Your task to perform on an android device: Clear all items from cart on bestbuy.com. Search for usb-a on bestbuy.com, select the first entry, add it to the cart, then select checkout. Image 0: 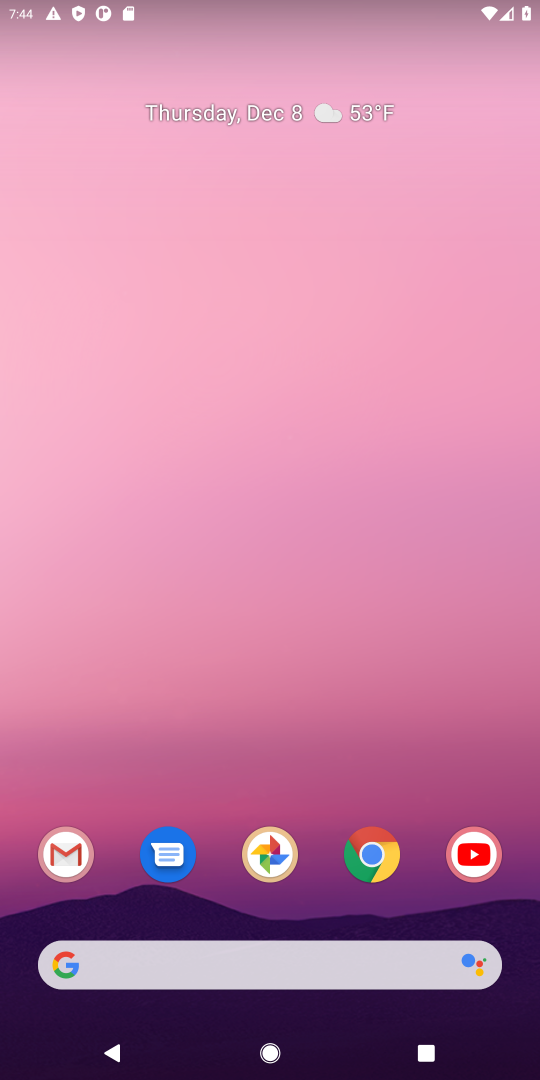
Step 0: drag from (223, 971) to (343, 320)
Your task to perform on an android device: Clear all items from cart on bestbuy.com. Search for usb-a on bestbuy.com, select the first entry, add it to the cart, then select checkout. Image 1: 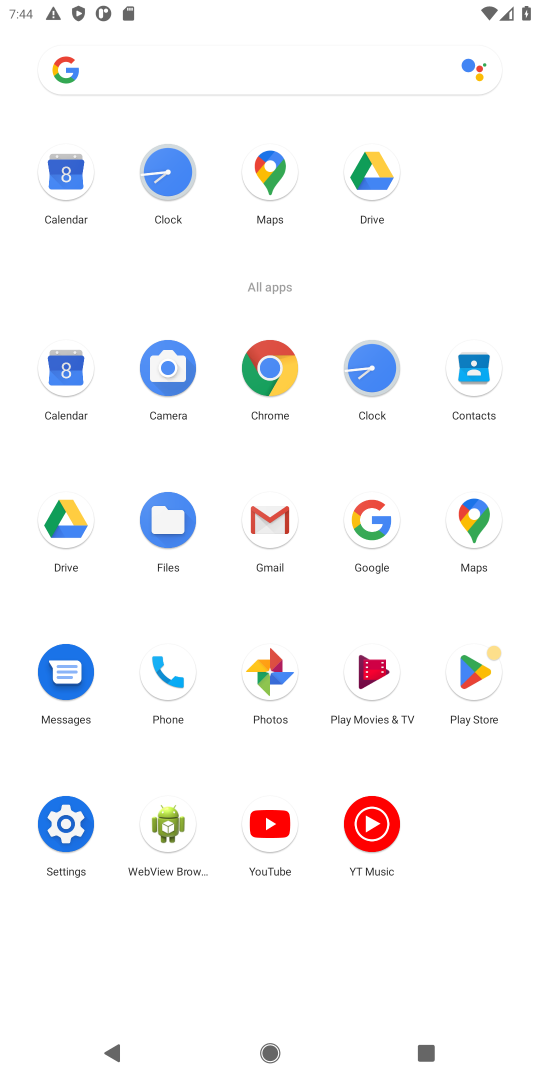
Step 1: click (367, 526)
Your task to perform on an android device: Clear all items from cart on bestbuy.com. Search for usb-a on bestbuy.com, select the first entry, add it to the cart, then select checkout. Image 2: 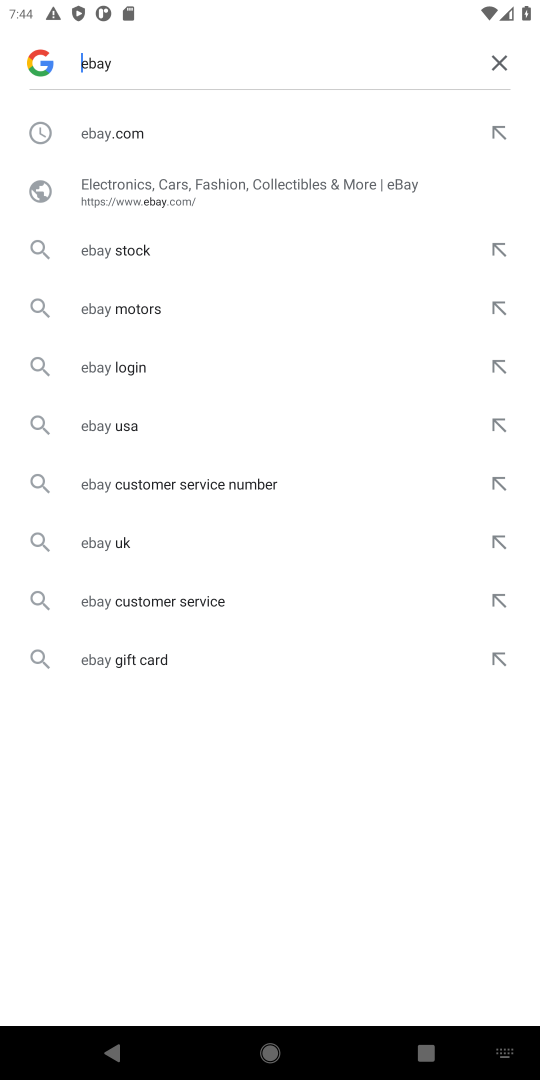
Step 2: click (168, 70)
Your task to perform on an android device: Clear all items from cart on bestbuy.com. Search for usb-a on bestbuy.com, select the first entry, add it to the cart, then select checkout. Image 3: 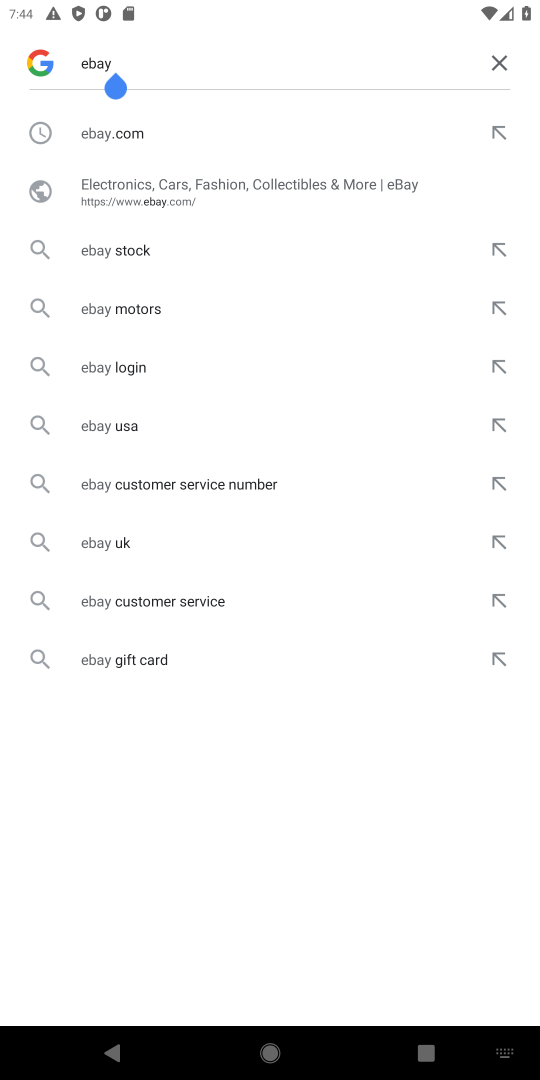
Step 3: click (506, 61)
Your task to perform on an android device: Clear all items from cart on bestbuy.com. Search for usb-a on bestbuy.com, select the first entry, add it to the cart, then select checkout. Image 4: 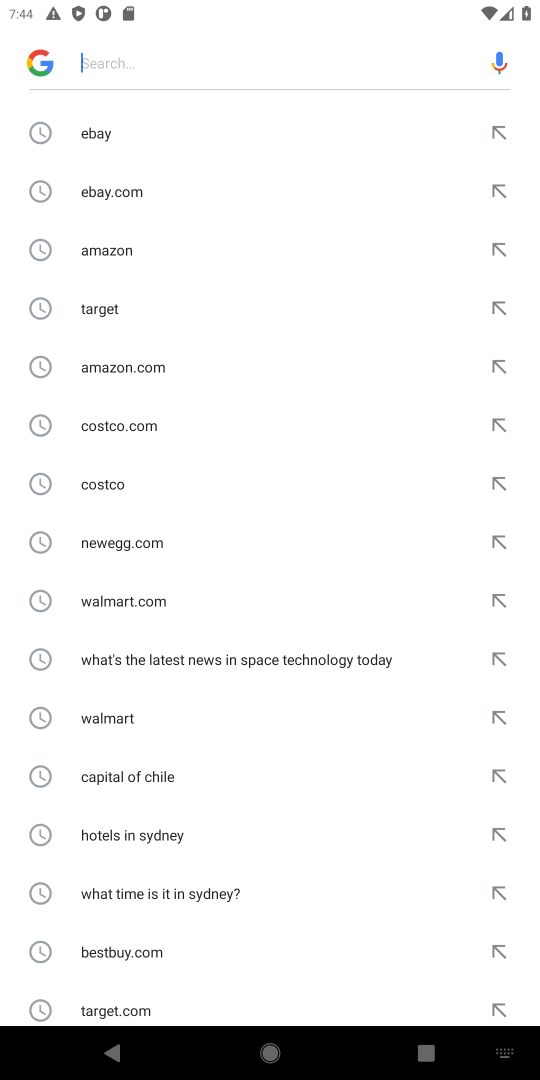
Step 4: click (119, 948)
Your task to perform on an android device: Clear all items from cart on bestbuy.com. Search for usb-a on bestbuy.com, select the first entry, add it to the cart, then select checkout. Image 5: 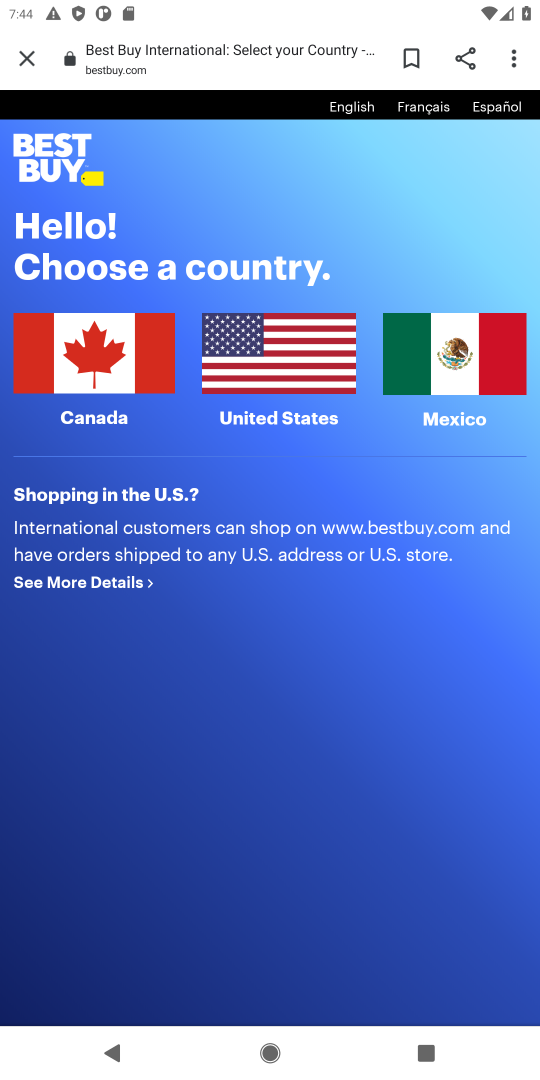
Step 5: click (270, 345)
Your task to perform on an android device: Clear all items from cart on bestbuy.com. Search for usb-a on bestbuy.com, select the first entry, add it to the cart, then select checkout. Image 6: 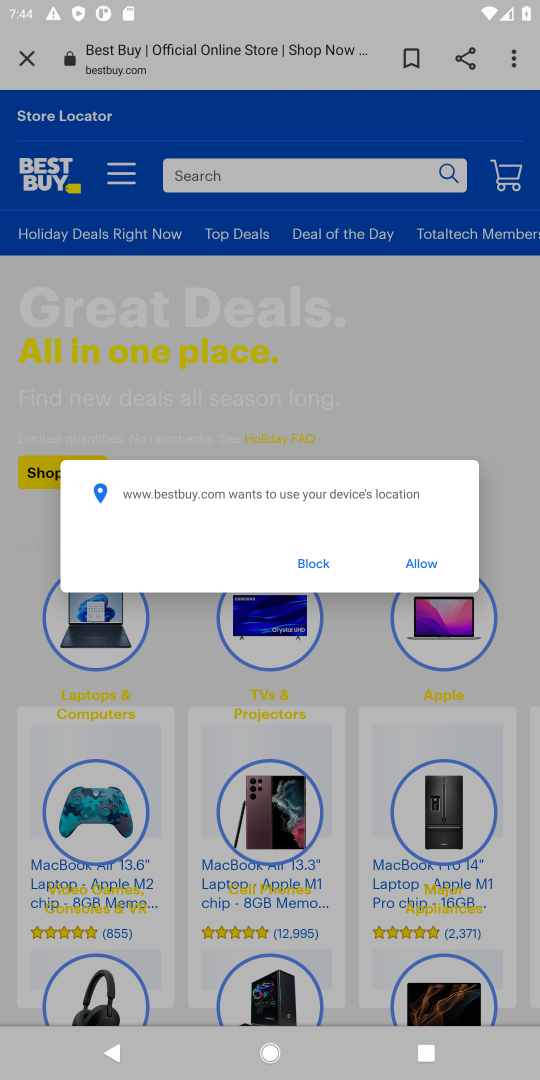
Step 6: click (276, 183)
Your task to perform on an android device: Clear all items from cart on bestbuy.com. Search for usb-a on bestbuy.com, select the first entry, add it to the cart, then select checkout. Image 7: 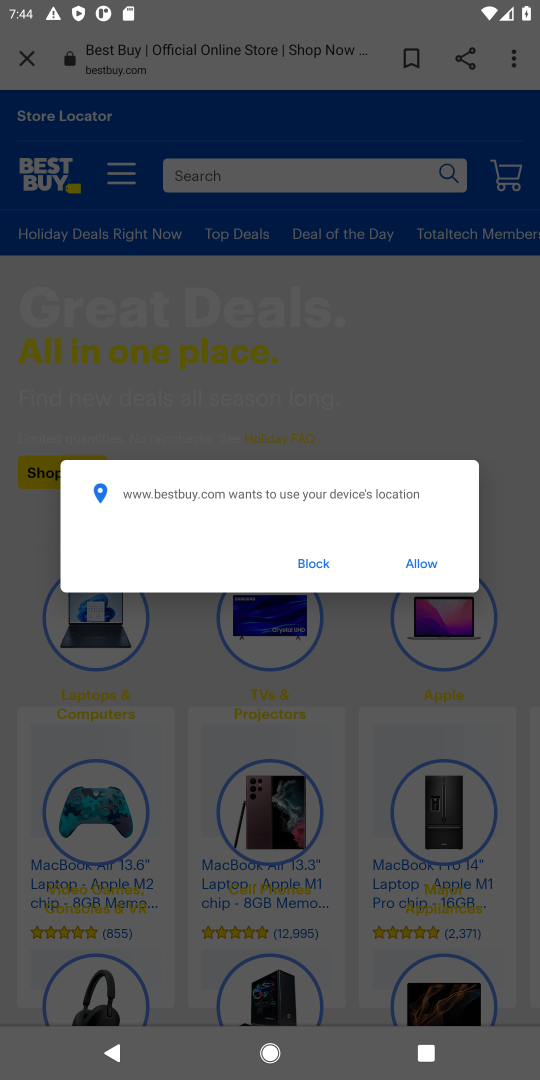
Step 7: click (423, 564)
Your task to perform on an android device: Clear all items from cart on bestbuy.com. Search for usb-a on bestbuy.com, select the first entry, add it to the cart, then select checkout. Image 8: 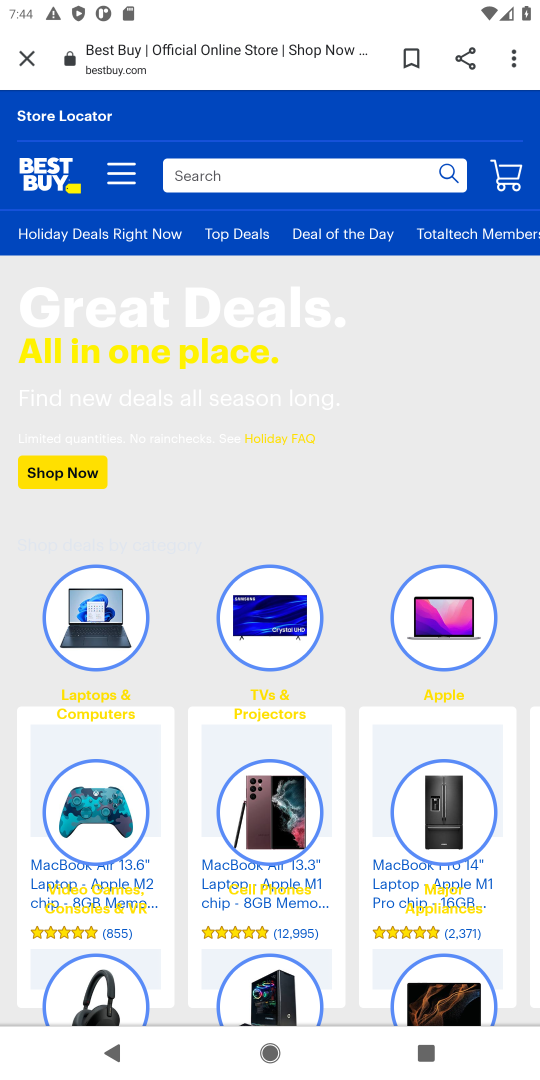
Step 8: click (197, 169)
Your task to perform on an android device: Clear all items from cart on bestbuy.com. Search for usb-a on bestbuy.com, select the first entry, add it to the cart, then select checkout. Image 9: 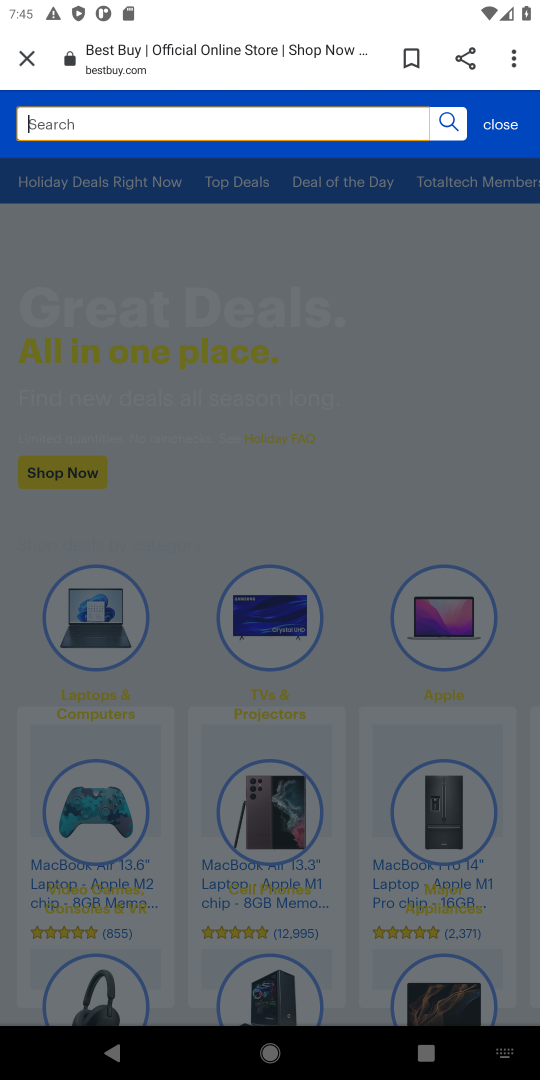
Step 9: type "usb-a"
Your task to perform on an android device: Clear all items from cart on bestbuy.com. Search for usb-a on bestbuy.com, select the first entry, add it to the cart, then select checkout. Image 10: 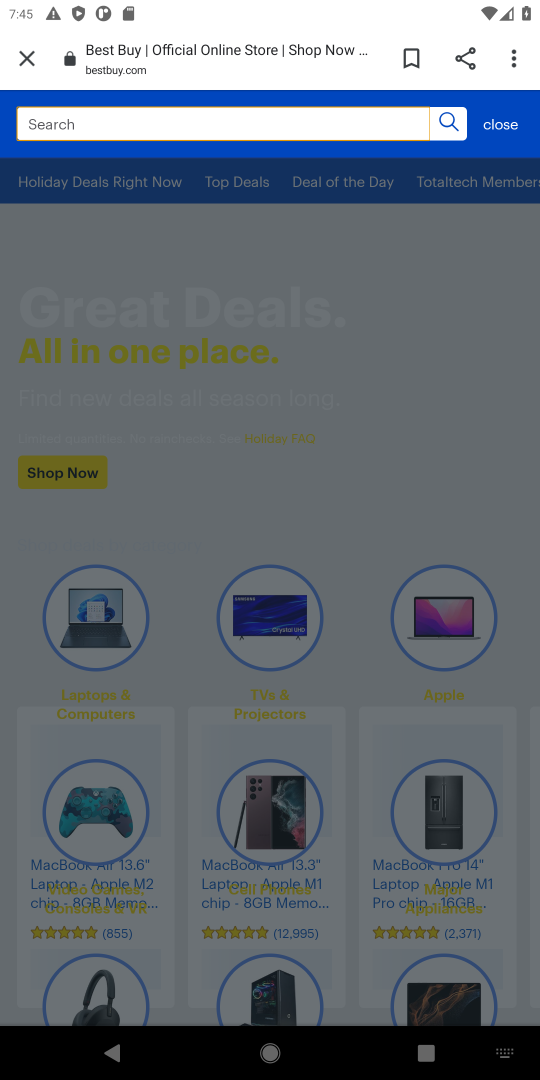
Step 10: click (450, 118)
Your task to perform on an android device: Clear all items from cart on bestbuy.com. Search for usb-a on bestbuy.com, select the first entry, add it to the cart, then select checkout. Image 11: 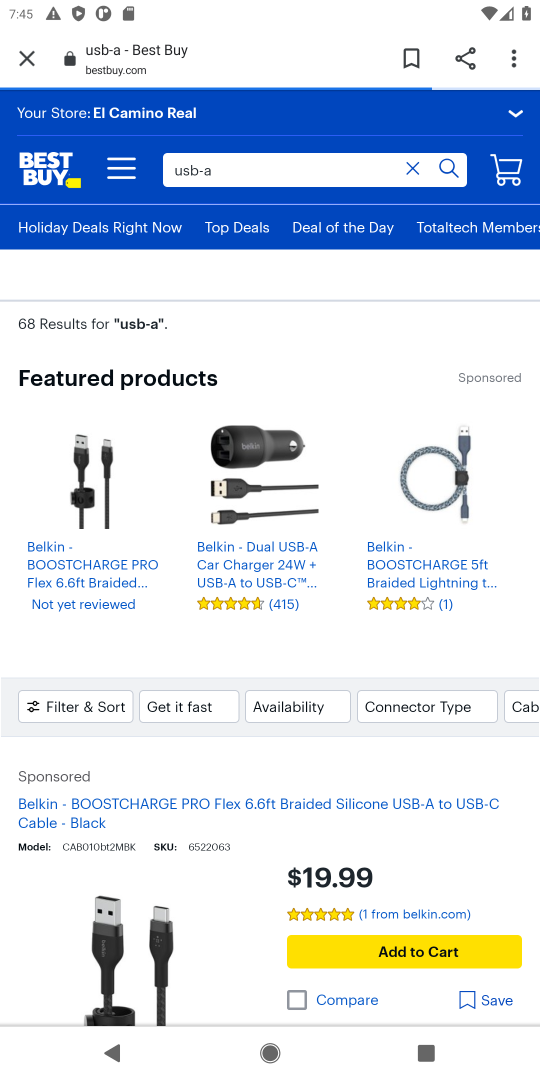
Step 11: drag from (231, 963) to (364, 442)
Your task to perform on an android device: Clear all items from cart on bestbuy.com. Search for usb-a on bestbuy.com, select the first entry, add it to the cart, then select checkout. Image 12: 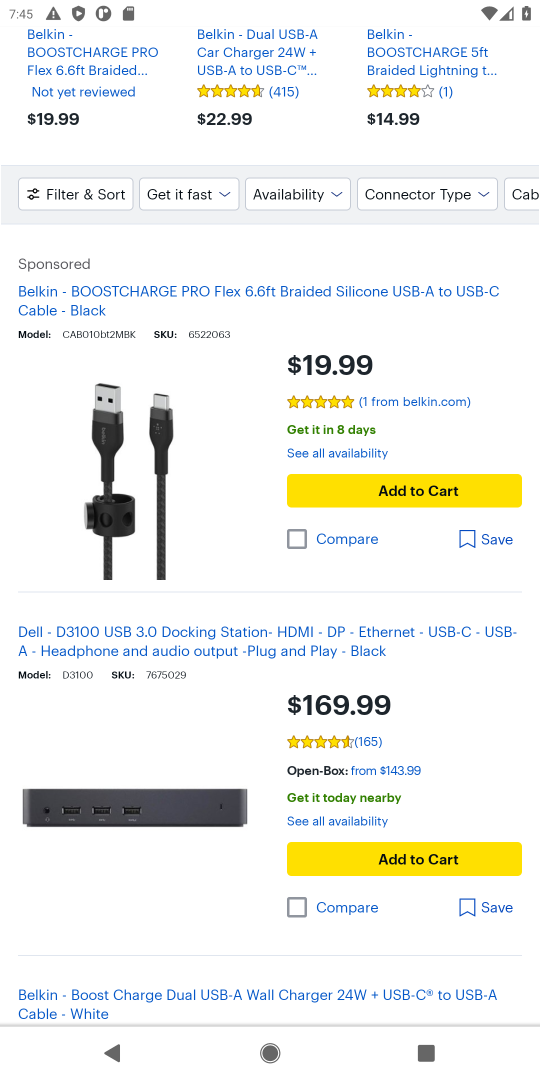
Step 12: click (403, 444)
Your task to perform on an android device: Clear all items from cart on bestbuy.com. Search for usb-a on bestbuy.com, select the first entry, add it to the cart, then select checkout. Image 13: 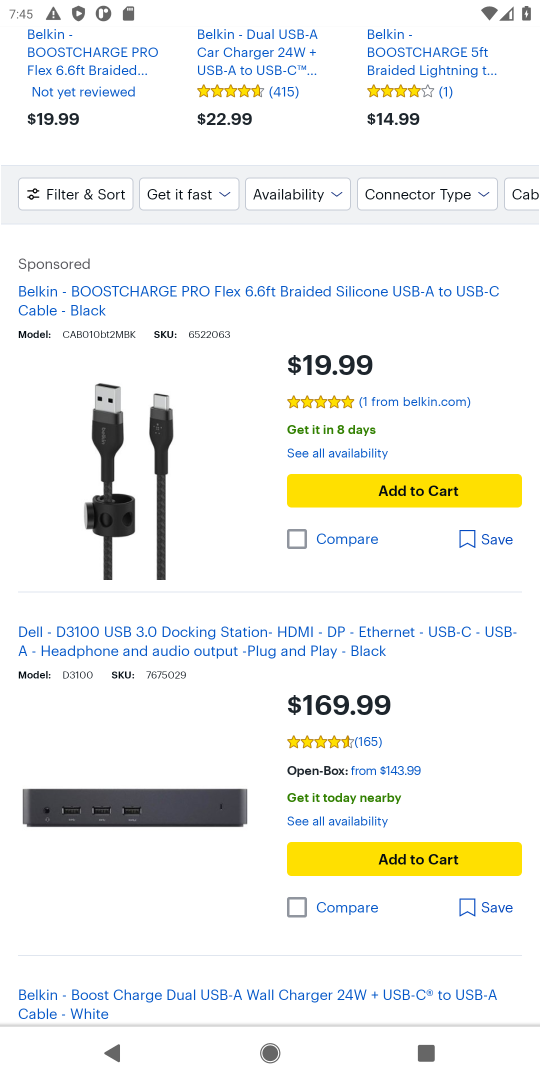
Step 13: click (412, 491)
Your task to perform on an android device: Clear all items from cart on bestbuy.com. Search for usb-a on bestbuy.com, select the first entry, add it to the cart, then select checkout. Image 14: 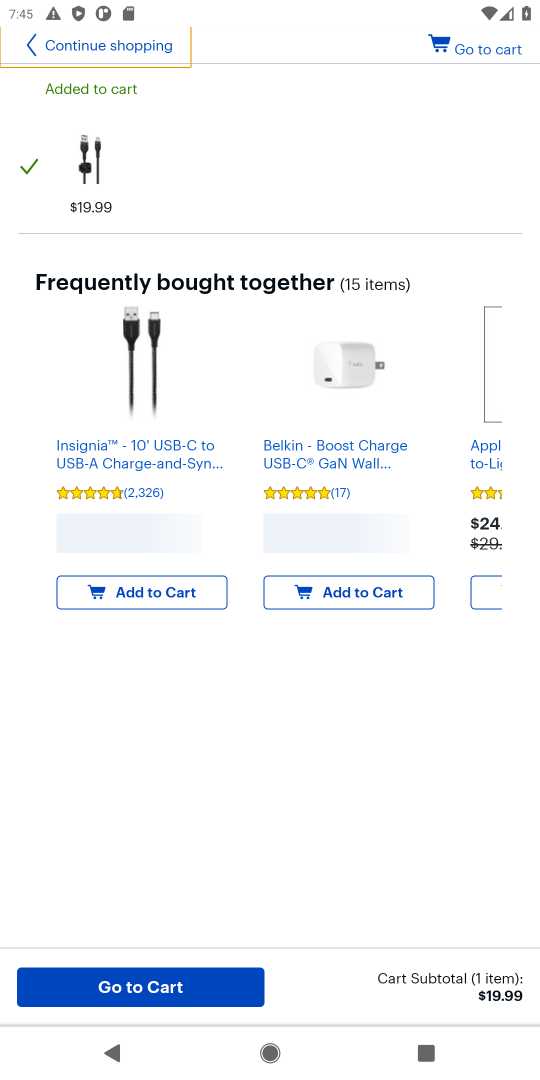
Step 14: click (138, 981)
Your task to perform on an android device: Clear all items from cart on bestbuy.com. Search for usb-a on bestbuy.com, select the first entry, add it to the cart, then select checkout. Image 15: 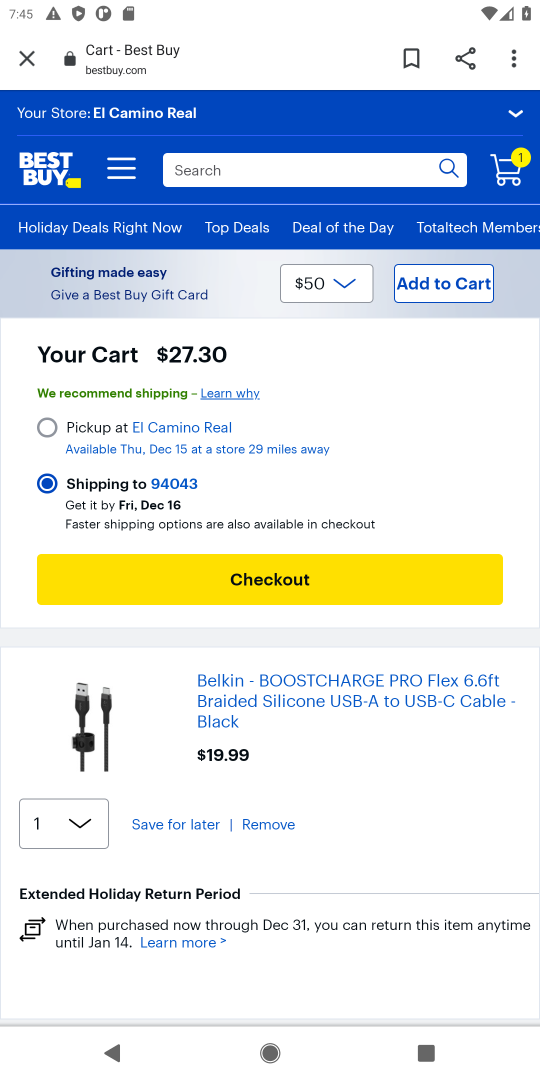
Step 15: click (249, 576)
Your task to perform on an android device: Clear all items from cart on bestbuy.com. Search for usb-a on bestbuy.com, select the first entry, add it to the cart, then select checkout. Image 16: 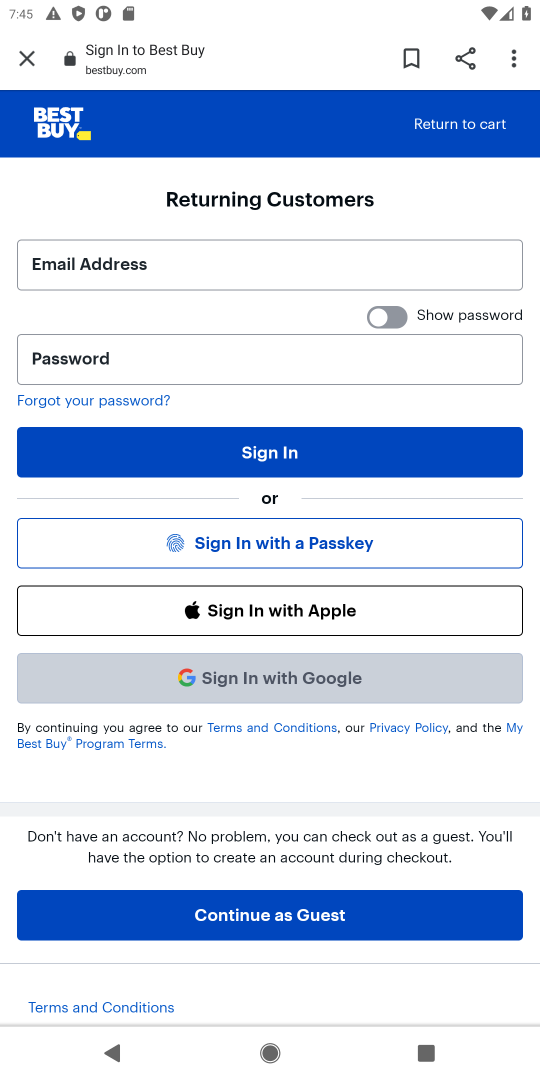
Step 16: task complete